Your task to perform on an android device: Clear all items from cart on target.com. Image 0: 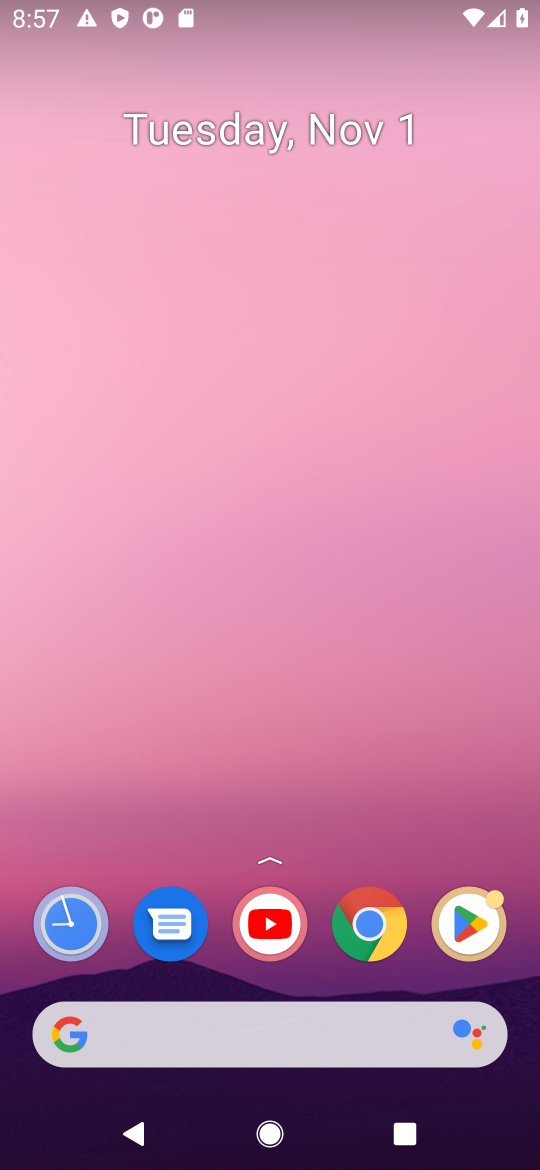
Step 0: click (367, 932)
Your task to perform on an android device: Clear all items from cart on target.com. Image 1: 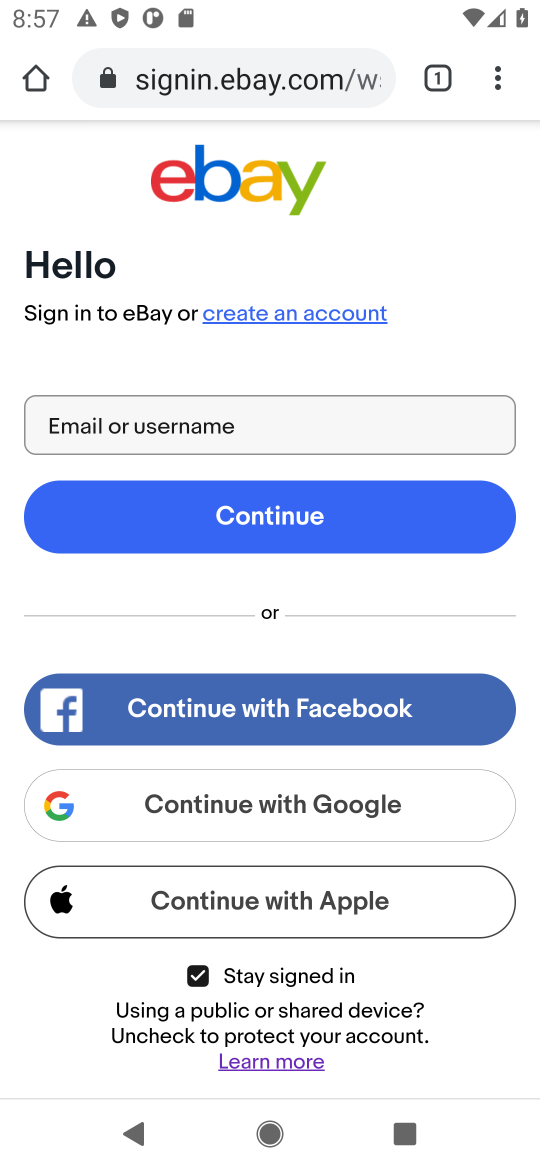
Step 1: click (243, 73)
Your task to perform on an android device: Clear all items from cart on target.com. Image 2: 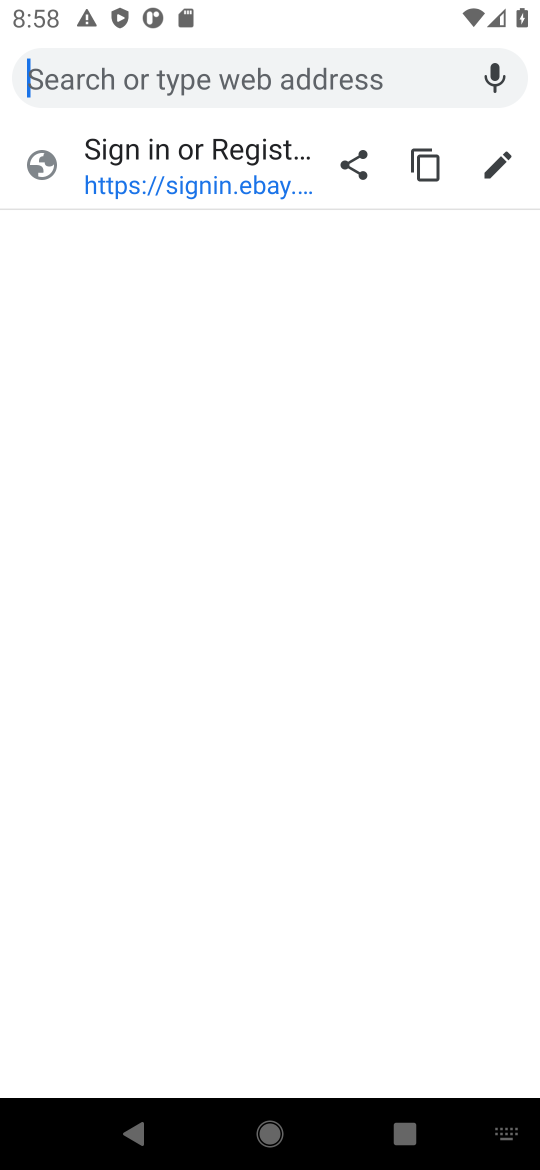
Step 2: type "target.com"
Your task to perform on an android device: Clear all items from cart on target.com. Image 3: 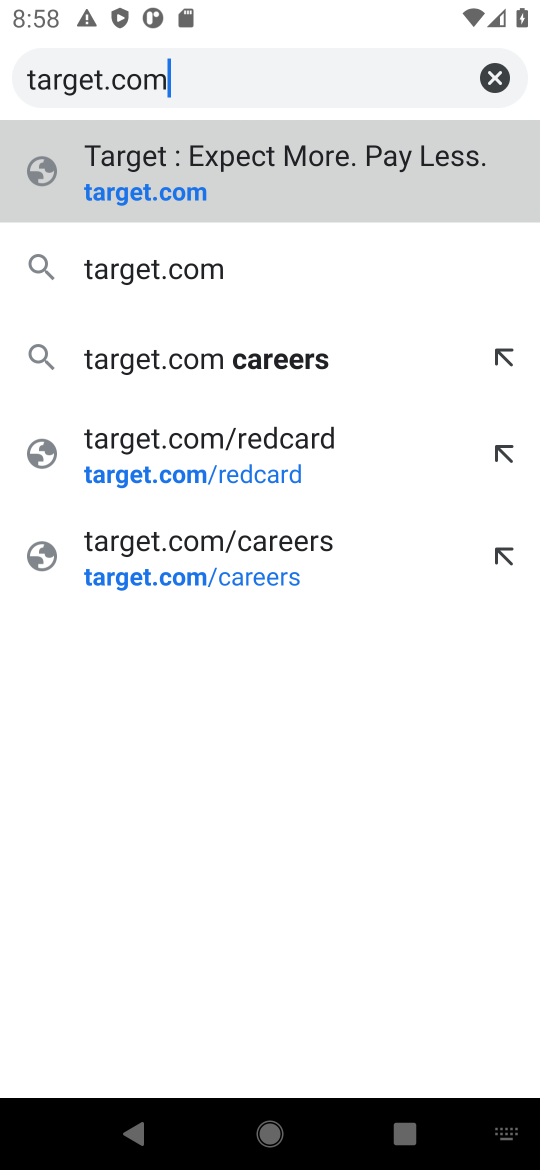
Step 3: click (208, 178)
Your task to perform on an android device: Clear all items from cart on target.com. Image 4: 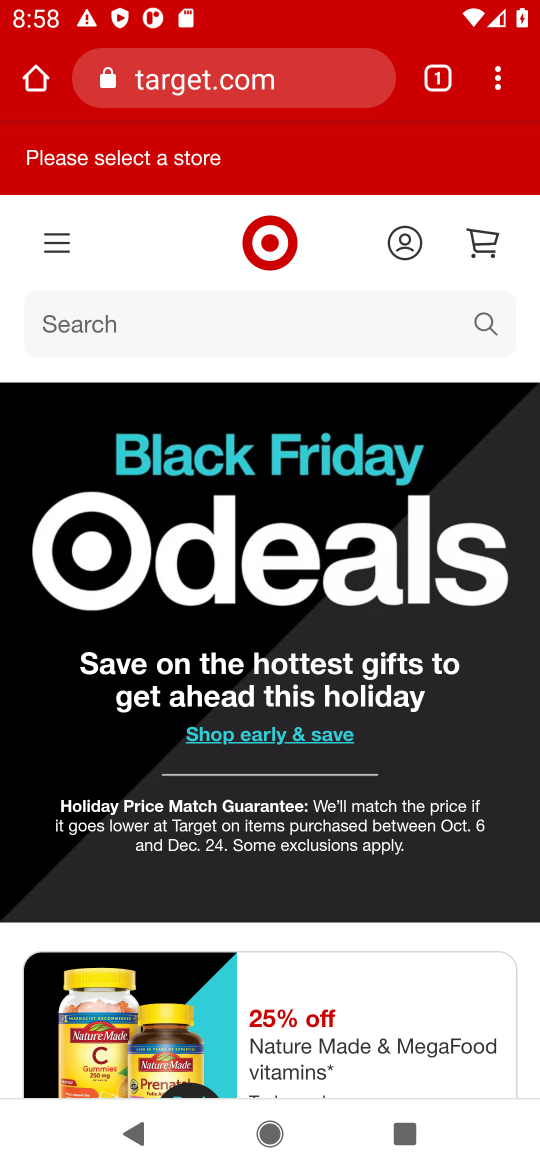
Step 4: click (481, 233)
Your task to perform on an android device: Clear all items from cart on target.com. Image 5: 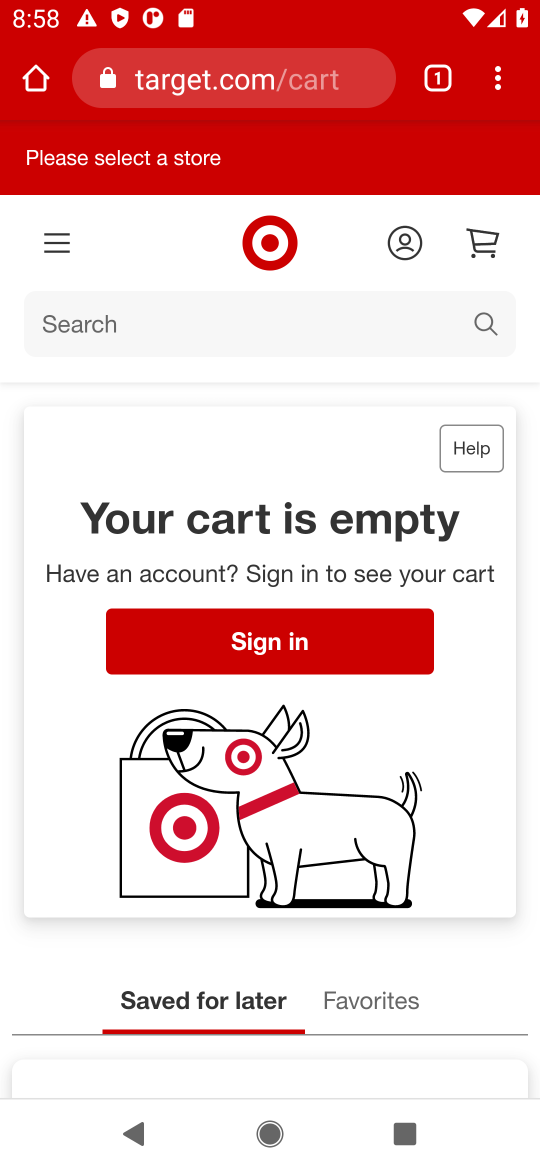
Step 5: task complete